Your task to perform on an android device: change the clock display to show seconds Image 0: 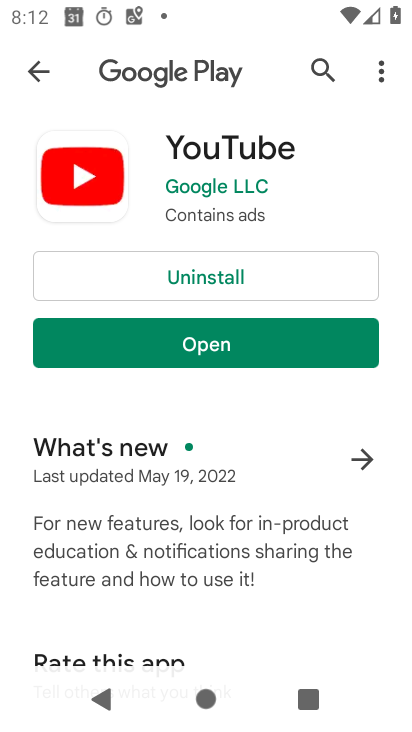
Step 0: press home button
Your task to perform on an android device: change the clock display to show seconds Image 1: 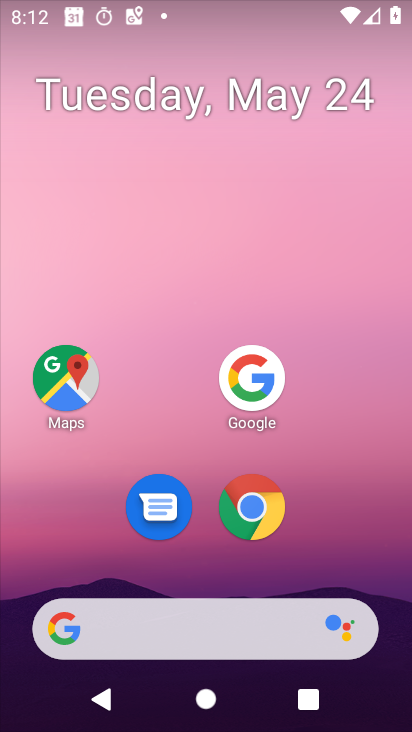
Step 1: drag from (174, 615) to (311, 186)
Your task to perform on an android device: change the clock display to show seconds Image 2: 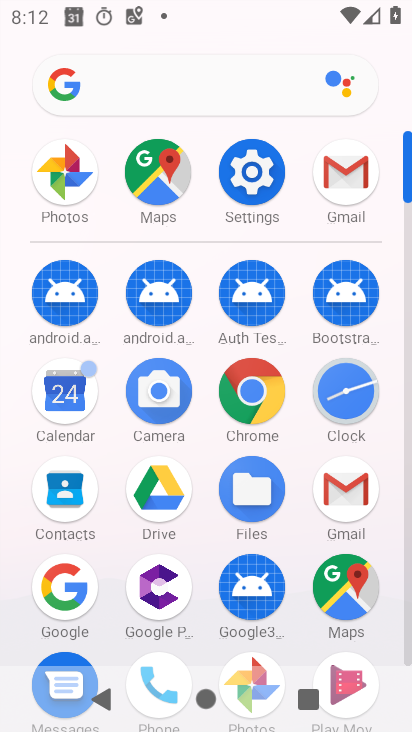
Step 2: click (338, 381)
Your task to perform on an android device: change the clock display to show seconds Image 3: 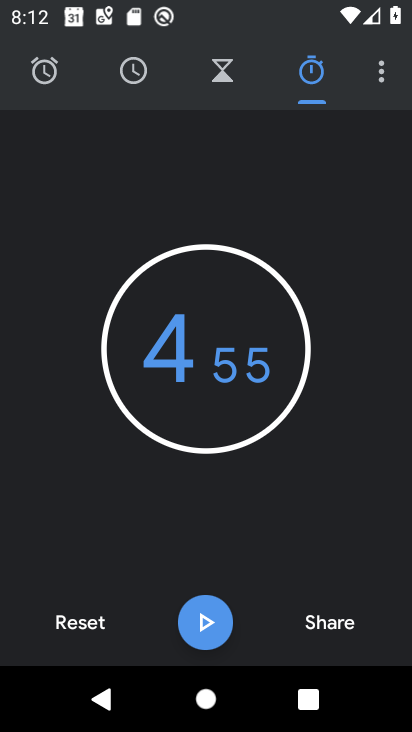
Step 3: click (385, 71)
Your task to perform on an android device: change the clock display to show seconds Image 4: 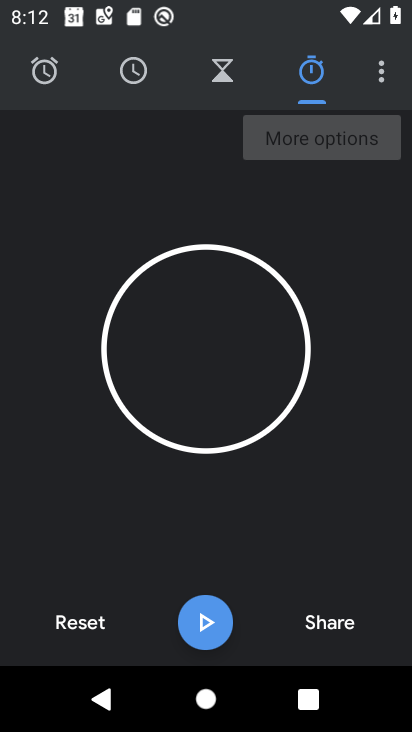
Step 4: click (384, 76)
Your task to perform on an android device: change the clock display to show seconds Image 5: 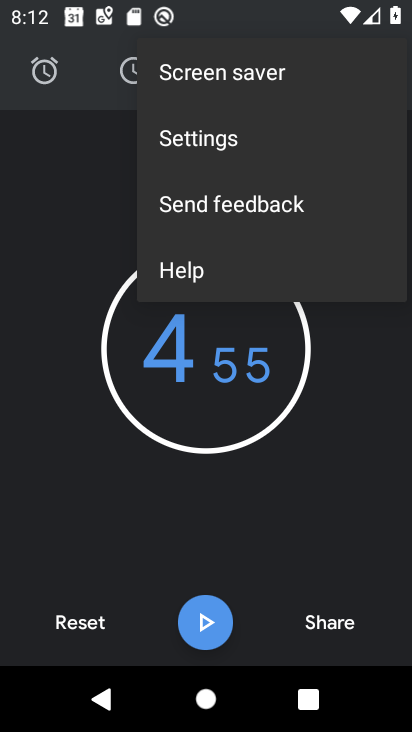
Step 5: click (252, 147)
Your task to perform on an android device: change the clock display to show seconds Image 6: 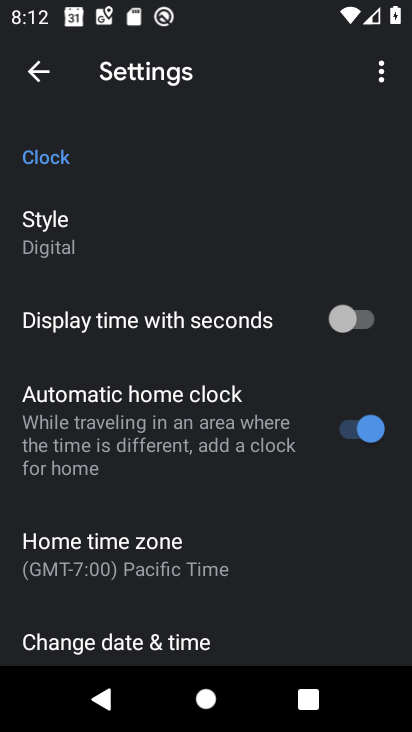
Step 6: click (366, 322)
Your task to perform on an android device: change the clock display to show seconds Image 7: 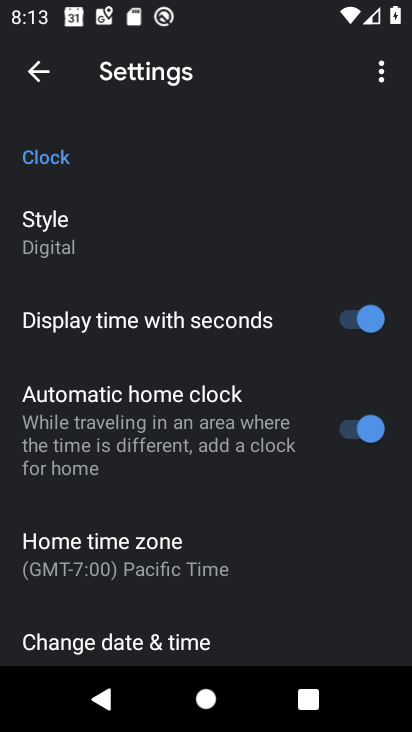
Step 7: task complete